Your task to perform on an android device: turn on location history Image 0: 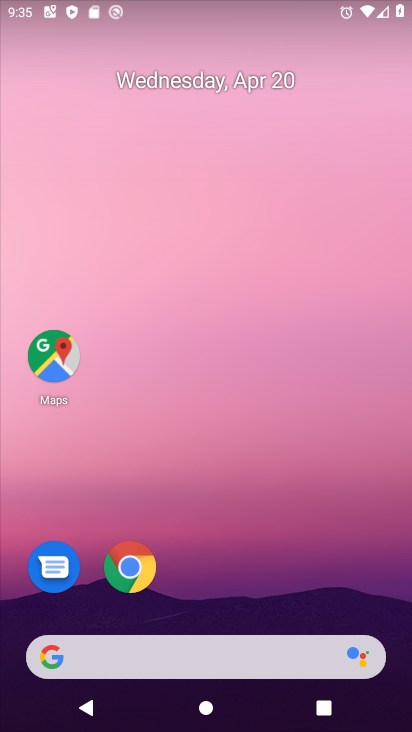
Step 0: drag from (297, 693) to (217, 215)
Your task to perform on an android device: turn on location history Image 1: 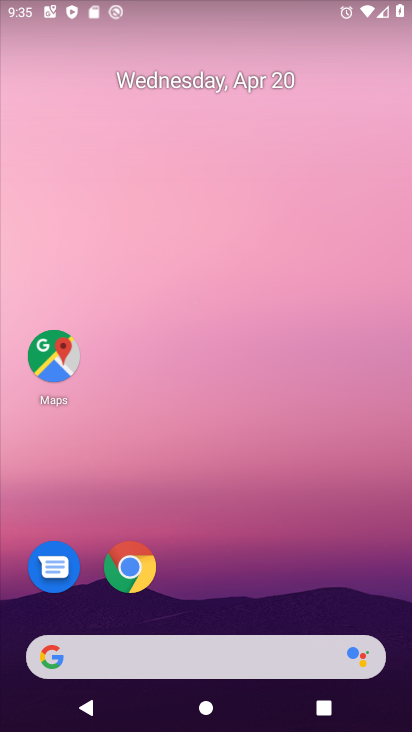
Step 1: drag from (234, 631) to (289, 248)
Your task to perform on an android device: turn on location history Image 2: 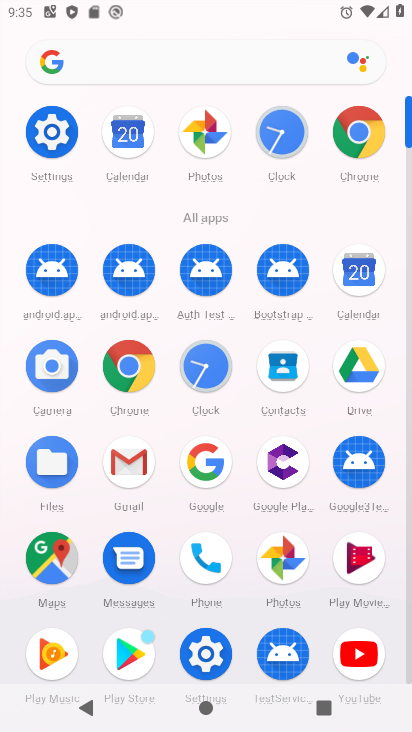
Step 2: click (40, 119)
Your task to perform on an android device: turn on location history Image 3: 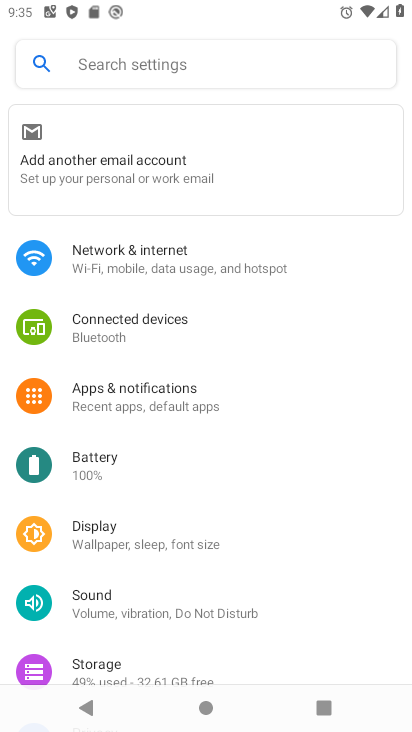
Step 3: drag from (178, 595) to (201, 304)
Your task to perform on an android device: turn on location history Image 4: 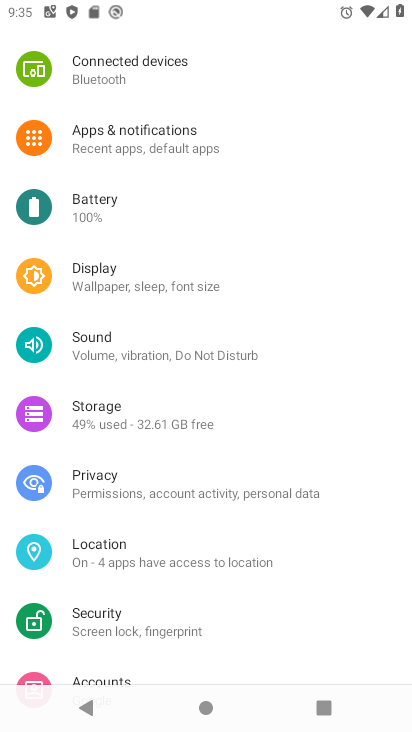
Step 4: click (118, 548)
Your task to perform on an android device: turn on location history Image 5: 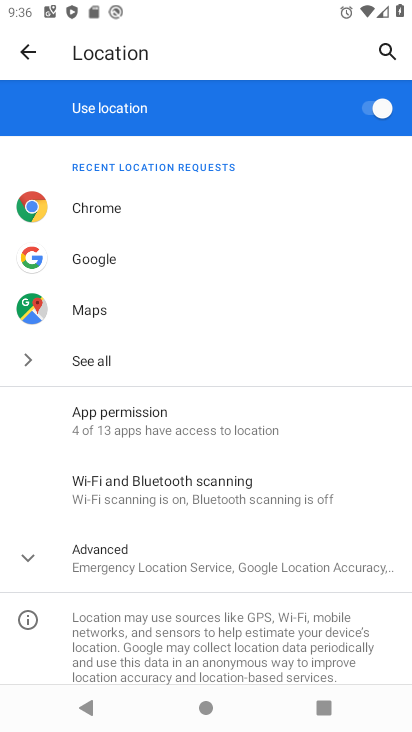
Step 5: click (145, 561)
Your task to perform on an android device: turn on location history Image 6: 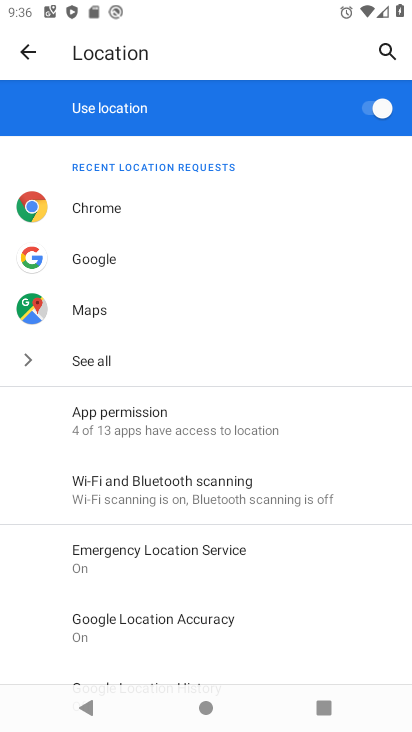
Step 6: drag from (243, 629) to (269, 440)
Your task to perform on an android device: turn on location history Image 7: 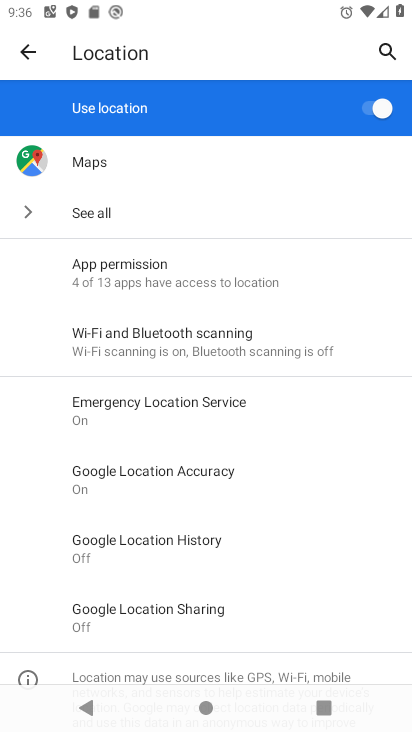
Step 7: click (209, 546)
Your task to perform on an android device: turn on location history Image 8: 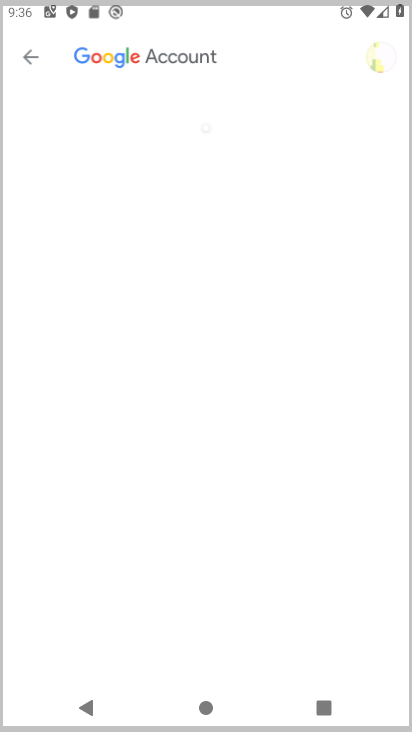
Step 8: drag from (218, 624) to (275, 90)
Your task to perform on an android device: turn on location history Image 9: 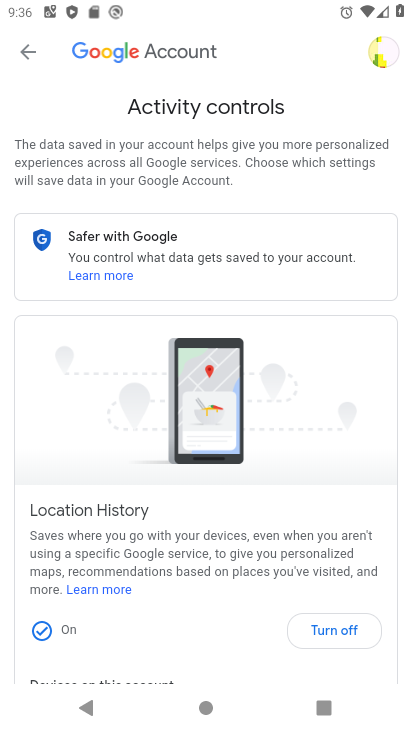
Step 9: click (334, 621)
Your task to perform on an android device: turn on location history Image 10: 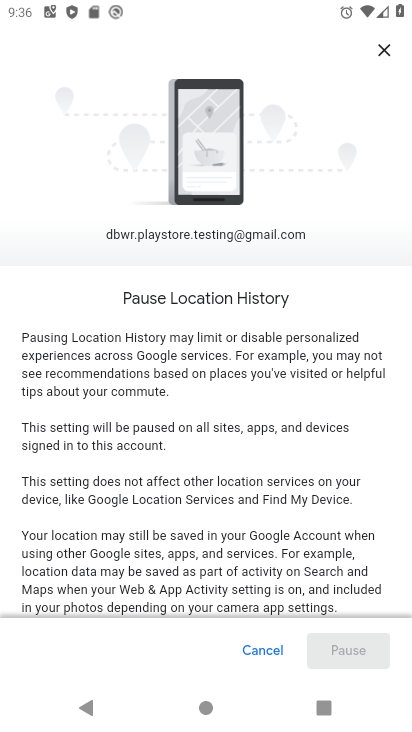
Step 10: click (264, 648)
Your task to perform on an android device: turn on location history Image 11: 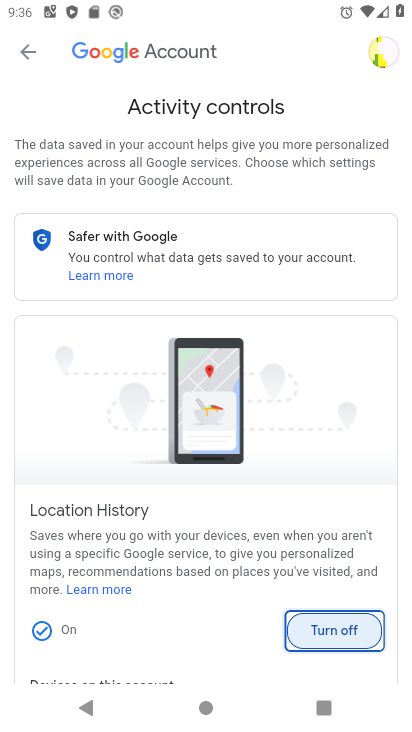
Step 11: click (37, 628)
Your task to perform on an android device: turn on location history Image 12: 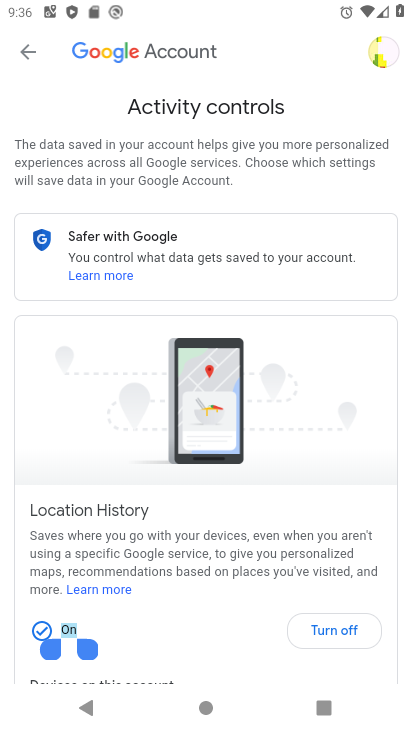
Step 12: task complete